Your task to perform on an android device: change keyboard looks Image 0: 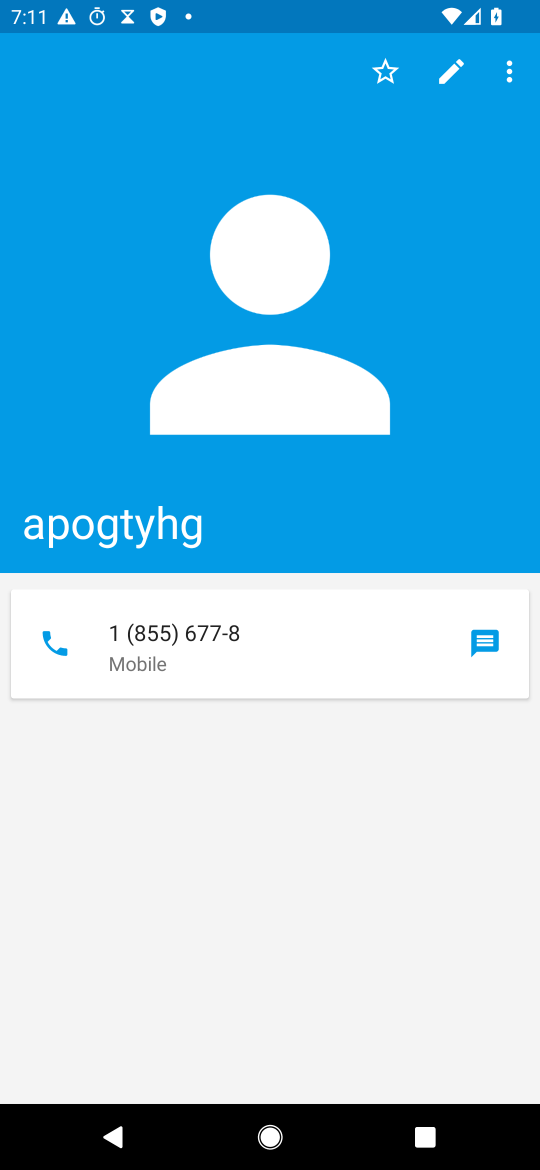
Step 0: press home button
Your task to perform on an android device: change keyboard looks Image 1: 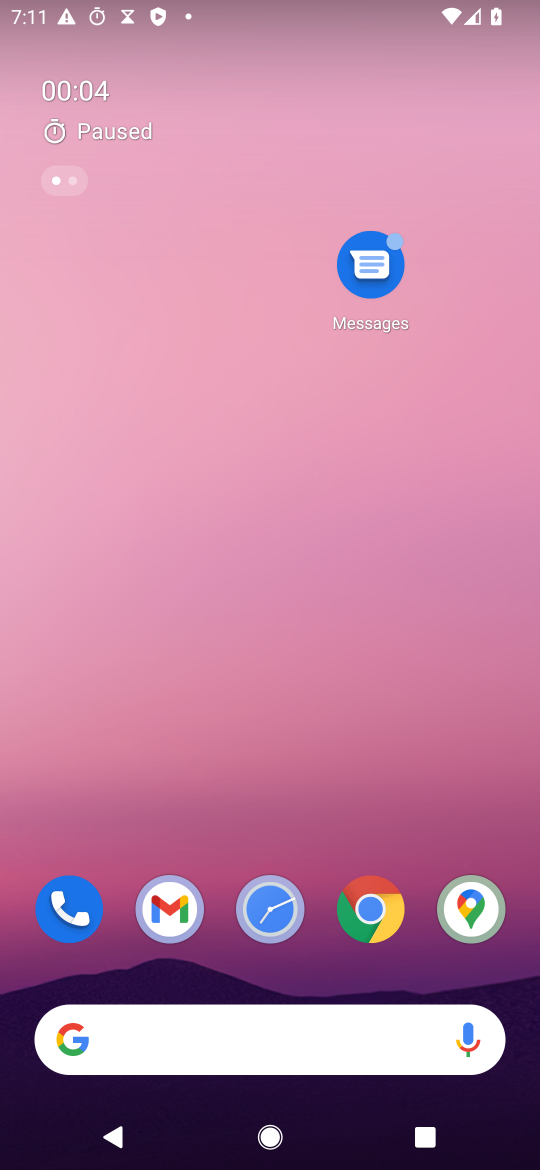
Step 1: drag from (255, 1047) to (464, 13)
Your task to perform on an android device: change keyboard looks Image 2: 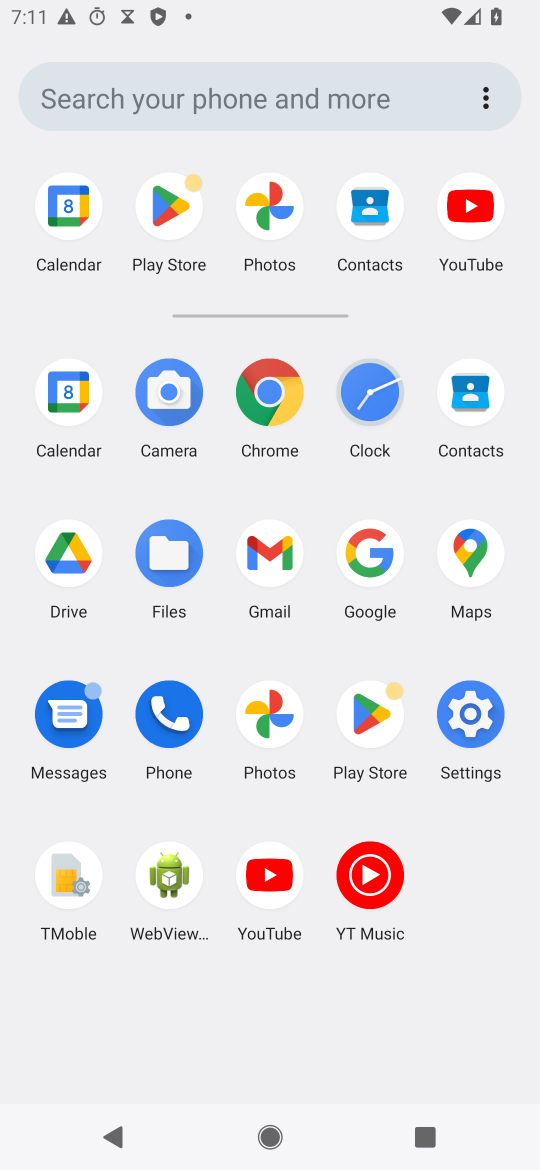
Step 2: click (472, 715)
Your task to perform on an android device: change keyboard looks Image 3: 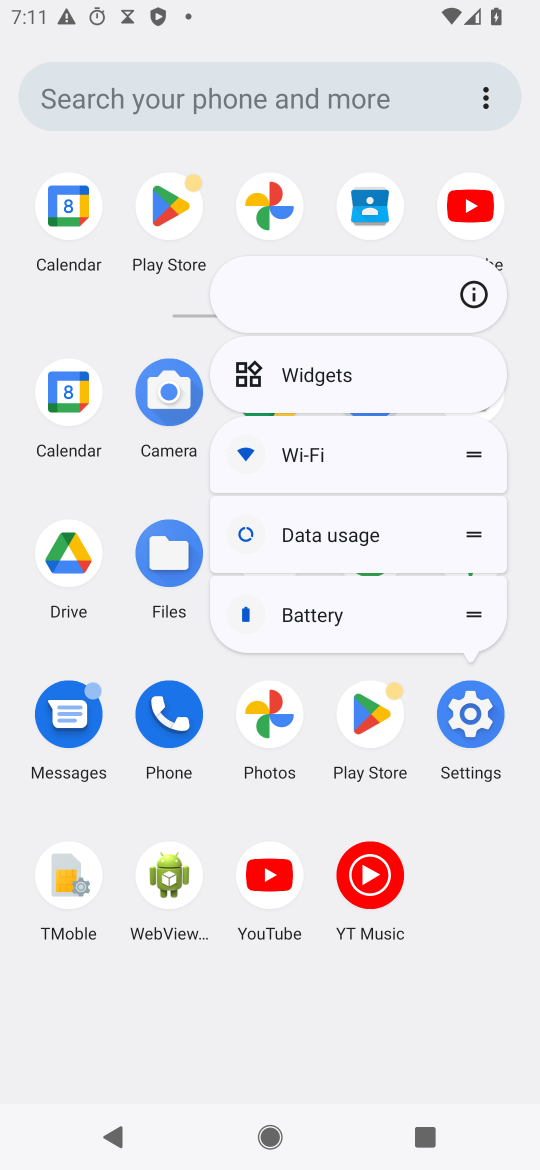
Step 3: click (484, 726)
Your task to perform on an android device: change keyboard looks Image 4: 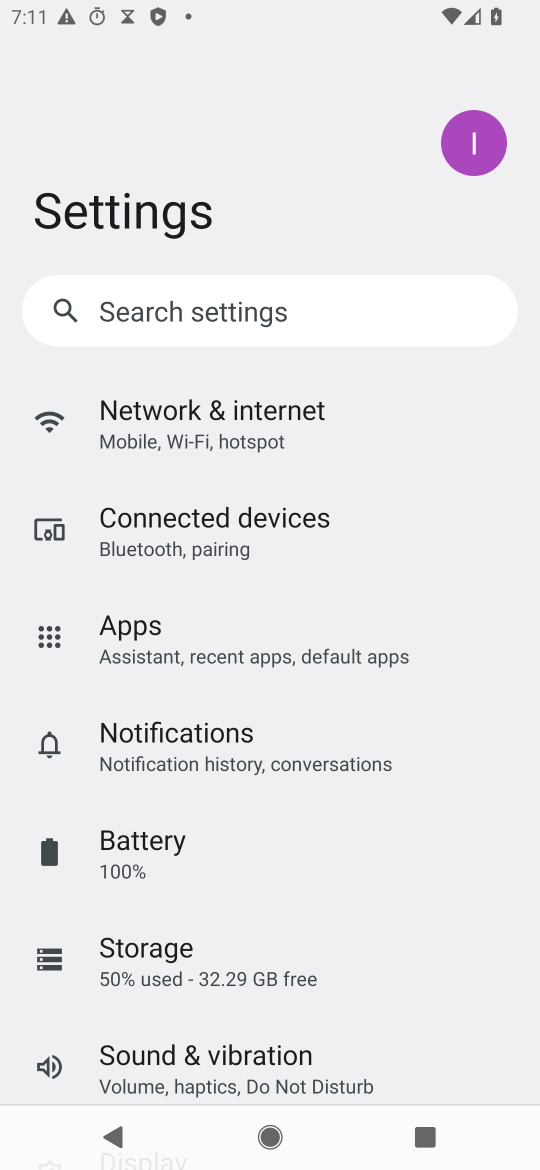
Step 4: drag from (339, 943) to (519, 55)
Your task to perform on an android device: change keyboard looks Image 5: 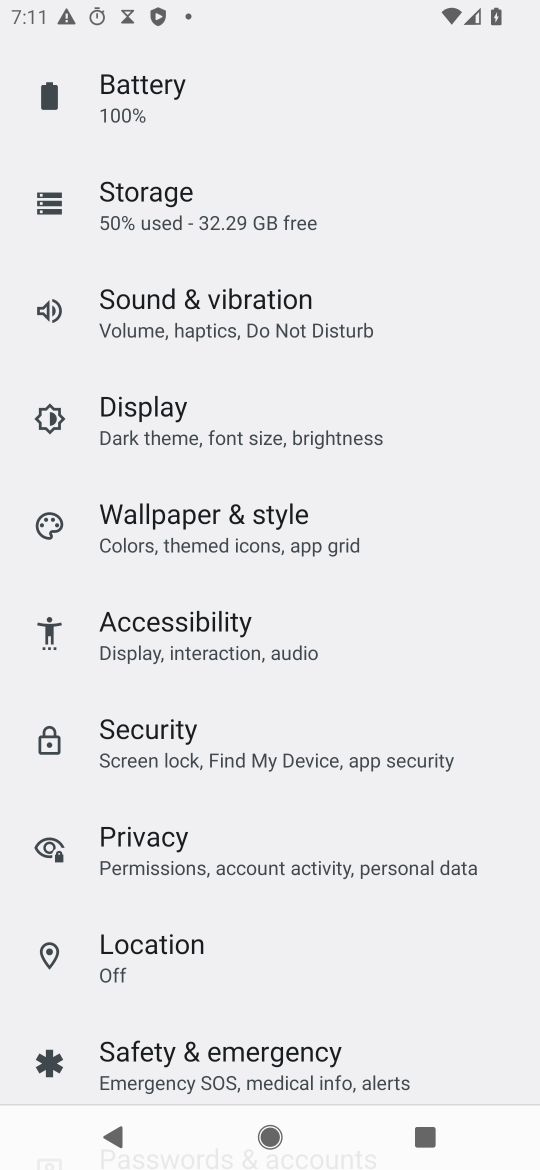
Step 5: drag from (295, 967) to (455, 54)
Your task to perform on an android device: change keyboard looks Image 6: 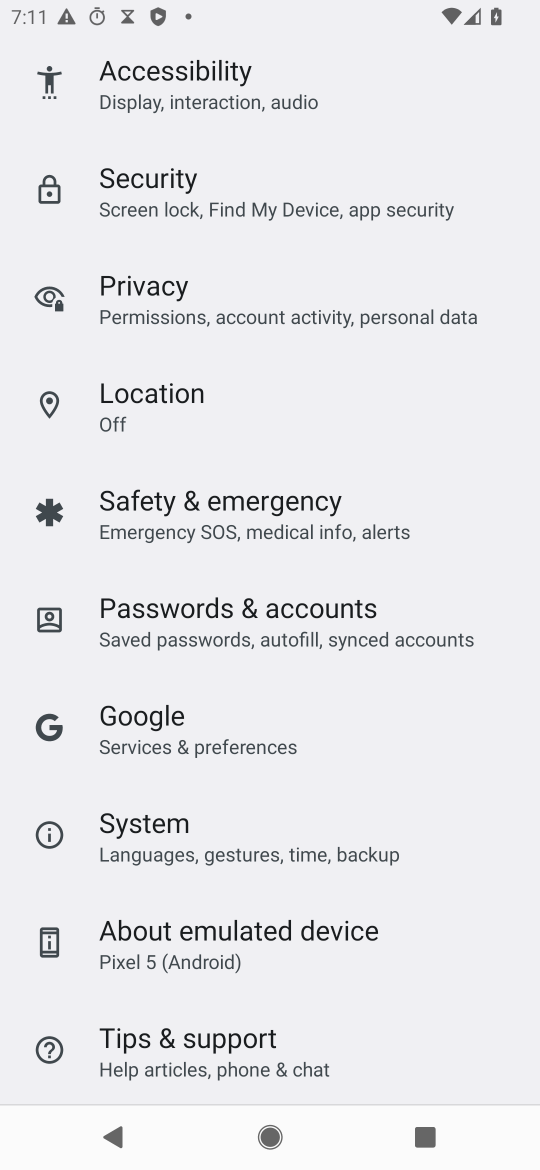
Step 6: click (211, 840)
Your task to perform on an android device: change keyboard looks Image 7: 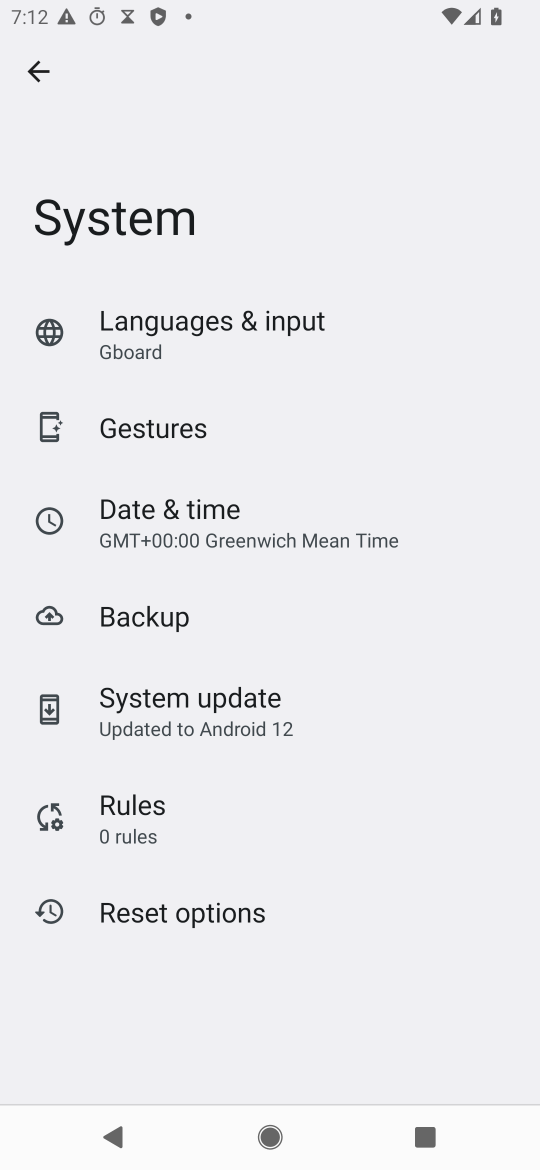
Step 7: click (217, 311)
Your task to perform on an android device: change keyboard looks Image 8: 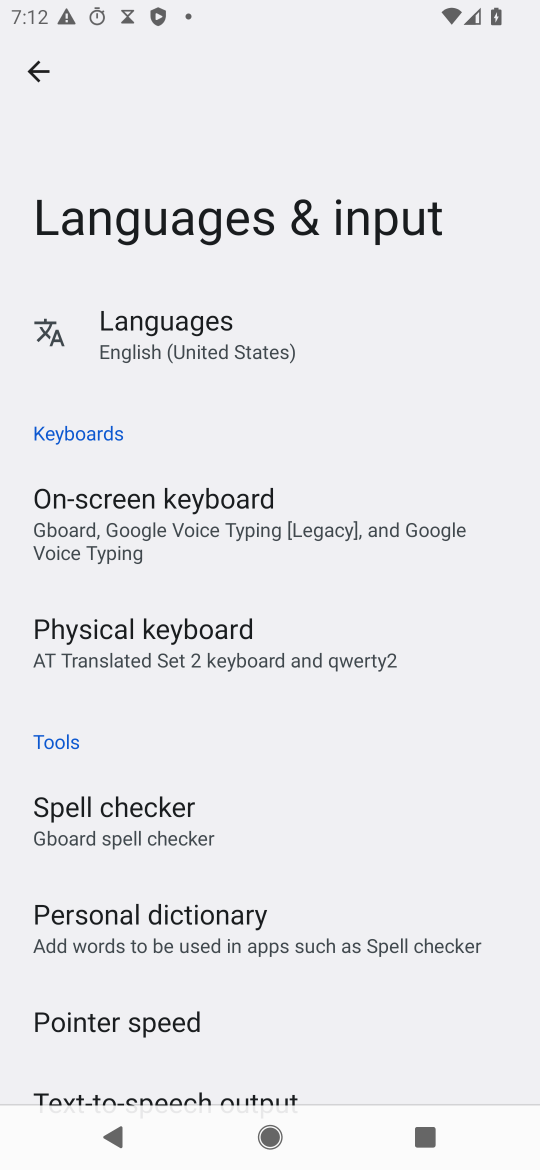
Step 8: click (237, 655)
Your task to perform on an android device: change keyboard looks Image 9: 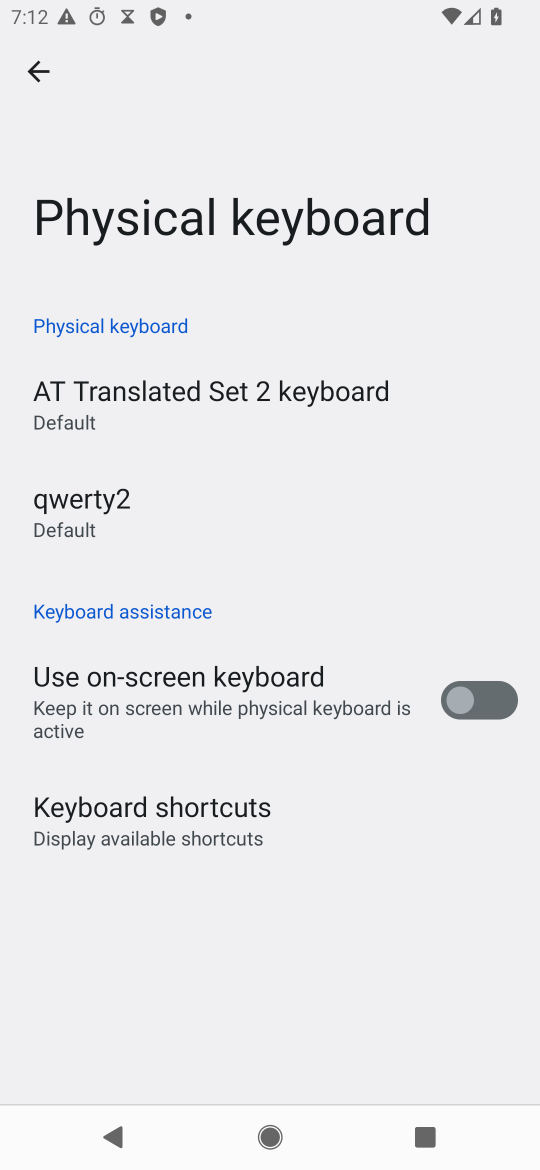
Step 9: click (33, 69)
Your task to perform on an android device: change keyboard looks Image 10: 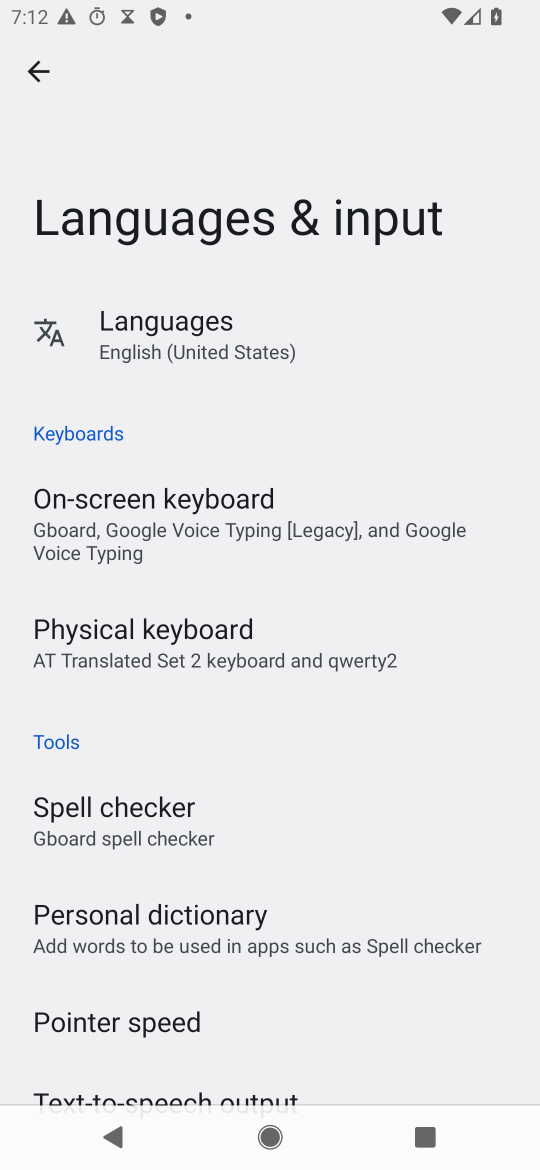
Step 10: click (123, 511)
Your task to perform on an android device: change keyboard looks Image 11: 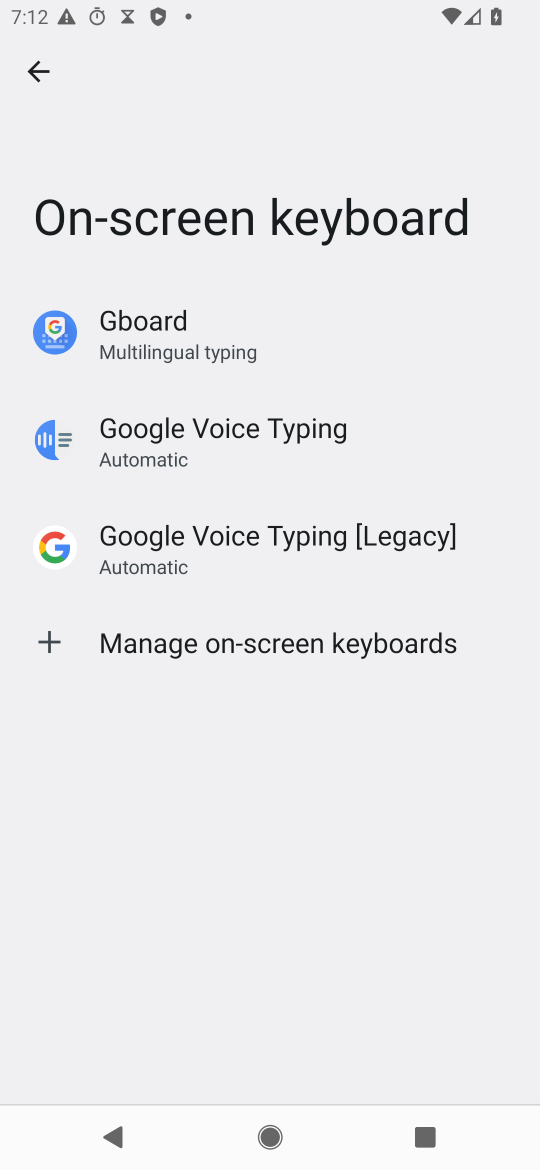
Step 11: click (152, 334)
Your task to perform on an android device: change keyboard looks Image 12: 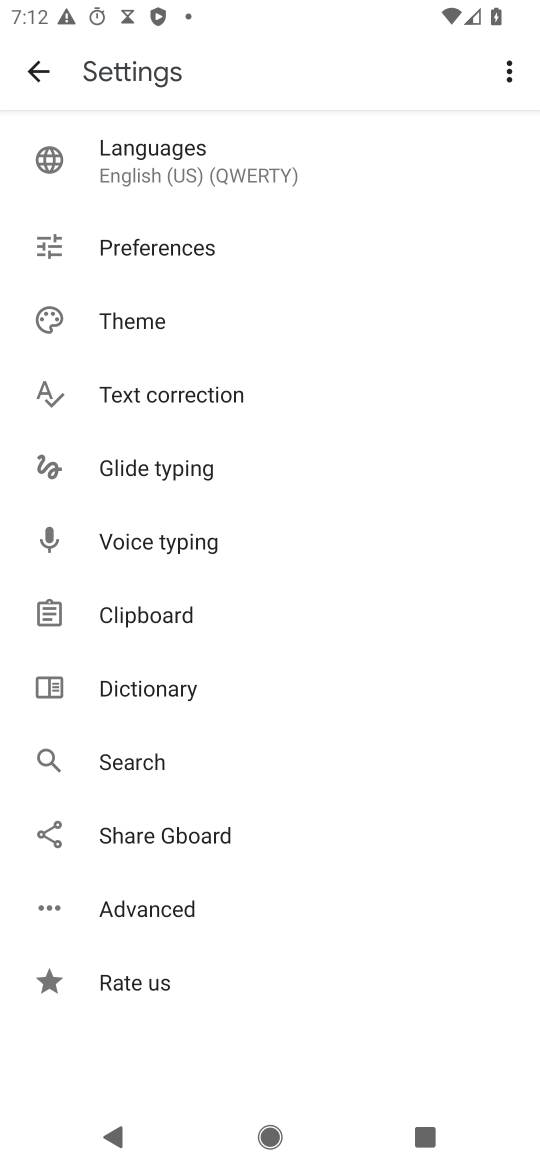
Step 12: click (137, 297)
Your task to perform on an android device: change keyboard looks Image 13: 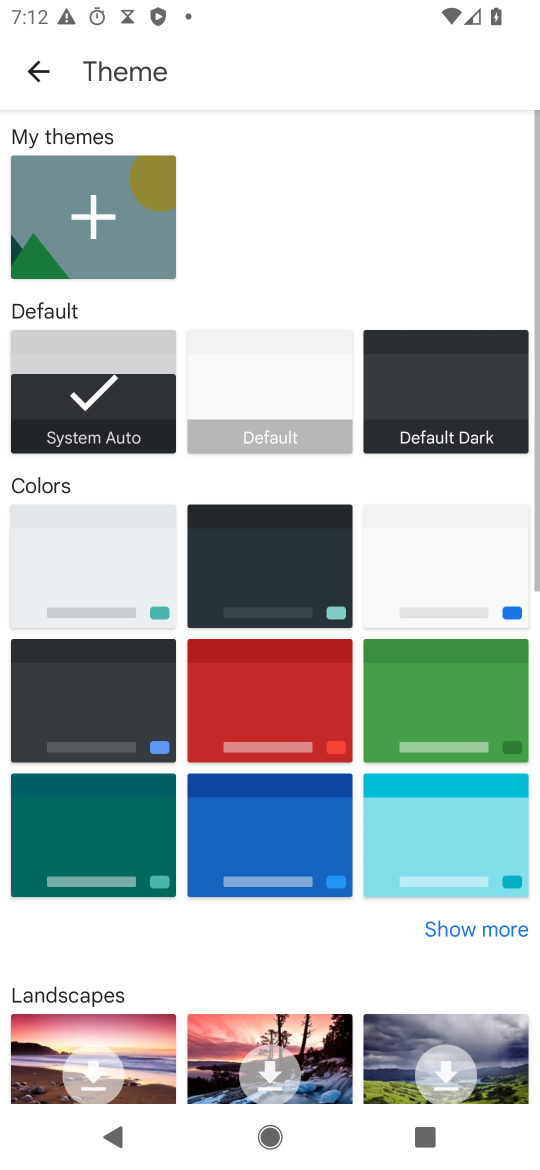
Step 13: click (448, 830)
Your task to perform on an android device: change keyboard looks Image 14: 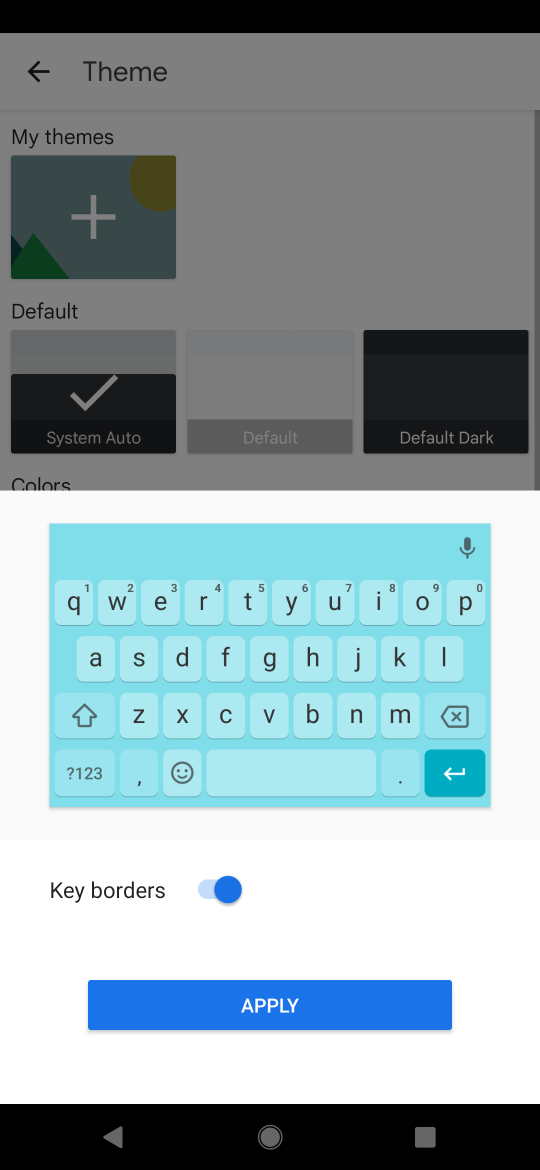
Step 14: click (331, 1008)
Your task to perform on an android device: change keyboard looks Image 15: 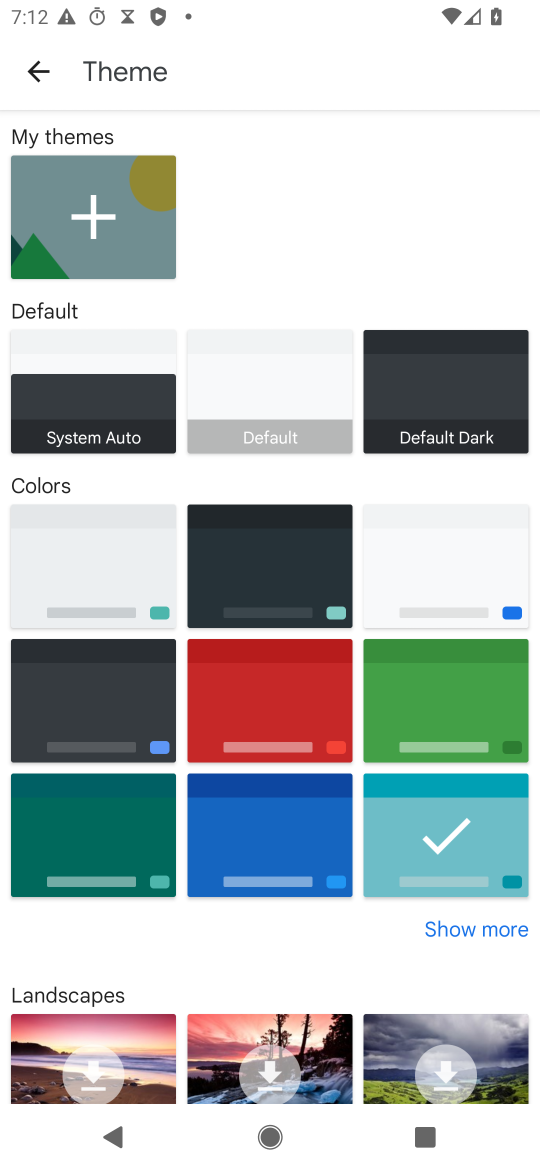
Step 15: task complete